Your task to perform on an android device: Open Google Chrome and open the bookmarks view Image 0: 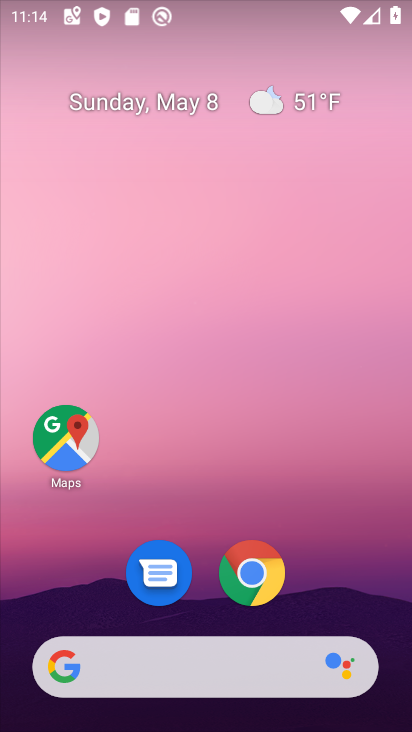
Step 0: click (245, 587)
Your task to perform on an android device: Open Google Chrome and open the bookmarks view Image 1: 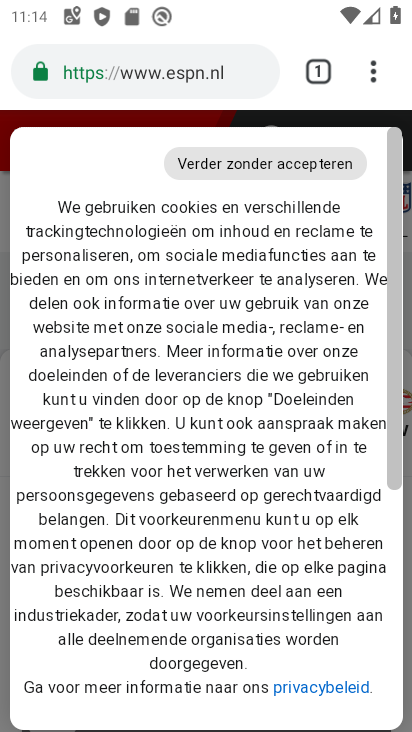
Step 1: click (369, 73)
Your task to perform on an android device: Open Google Chrome and open the bookmarks view Image 2: 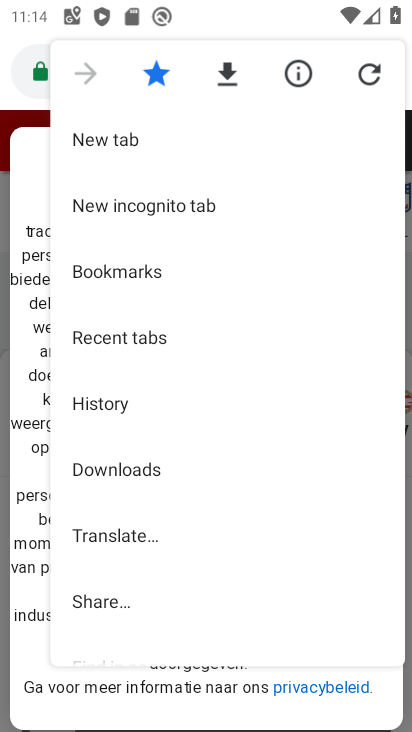
Step 2: click (127, 272)
Your task to perform on an android device: Open Google Chrome and open the bookmarks view Image 3: 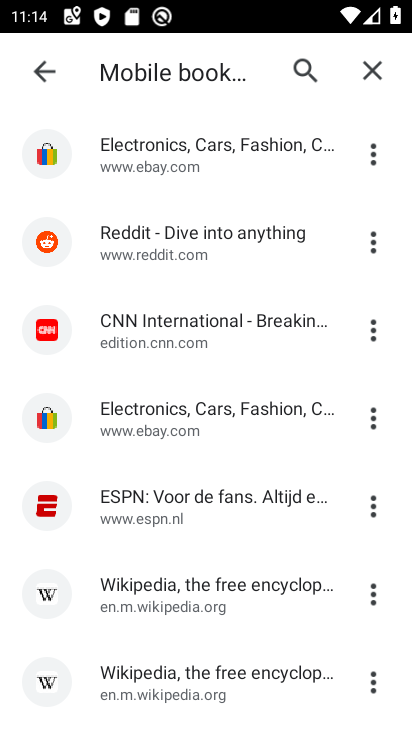
Step 3: task complete